Your task to perform on an android device: delete a single message in the gmail app Image 0: 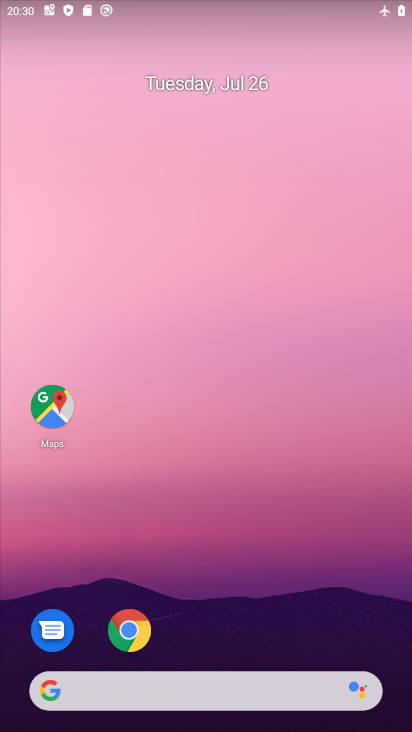
Step 0: drag from (216, 636) to (144, 207)
Your task to perform on an android device: delete a single message in the gmail app Image 1: 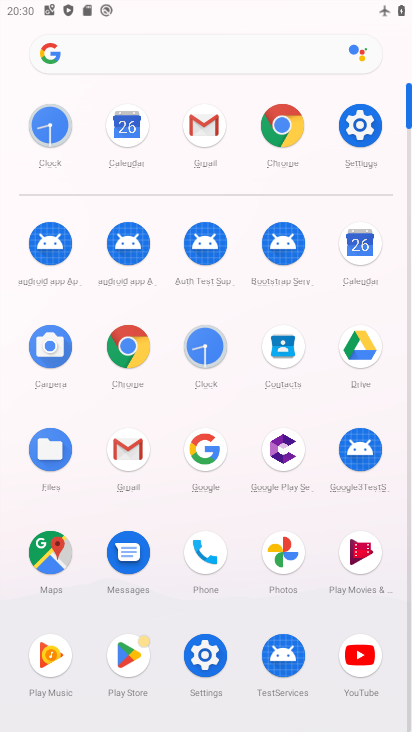
Step 1: click (208, 151)
Your task to perform on an android device: delete a single message in the gmail app Image 2: 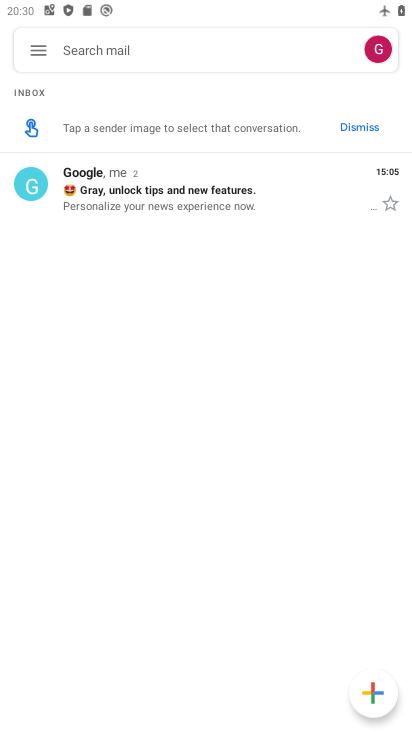
Step 2: click (39, 184)
Your task to perform on an android device: delete a single message in the gmail app Image 3: 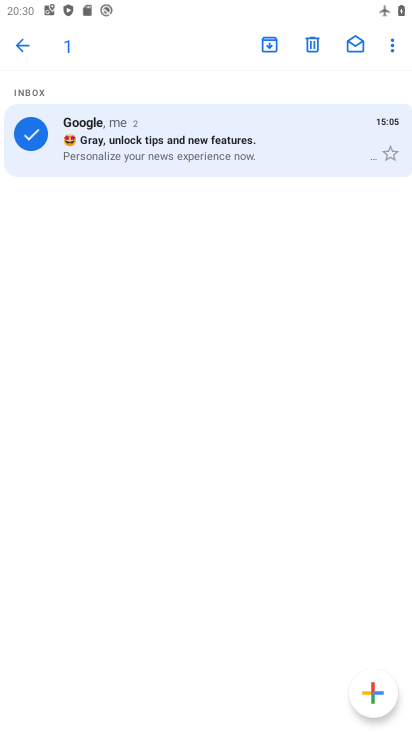
Step 3: click (318, 48)
Your task to perform on an android device: delete a single message in the gmail app Image 4: 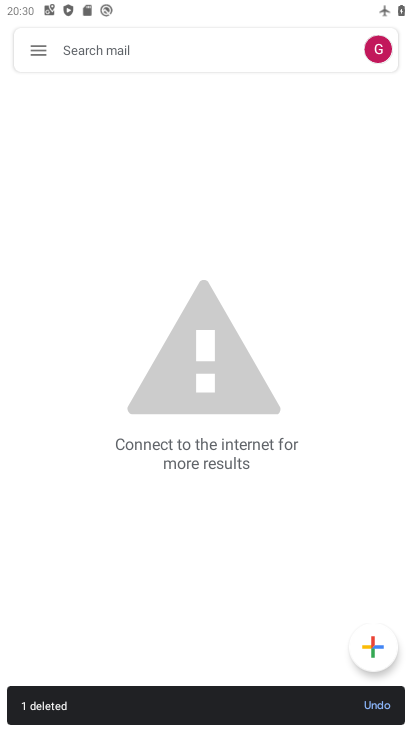
Step 4: task complete